Your task to perform on an android device: turn on location history Image 0: 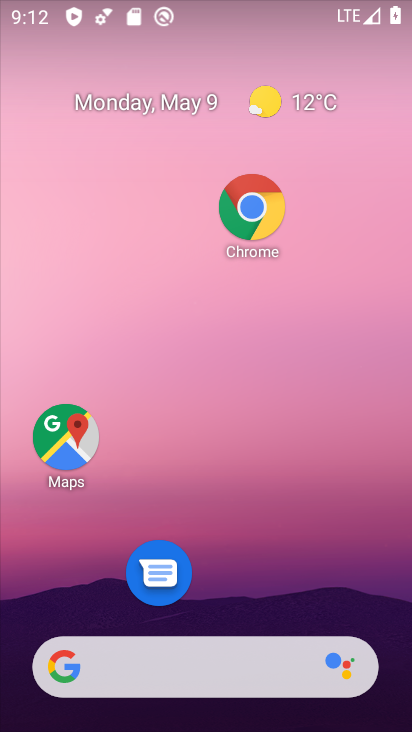
Step 0: drag from (265, 534) to (233, 351)
Your task to perform on an android device: turn on location history Image 1: 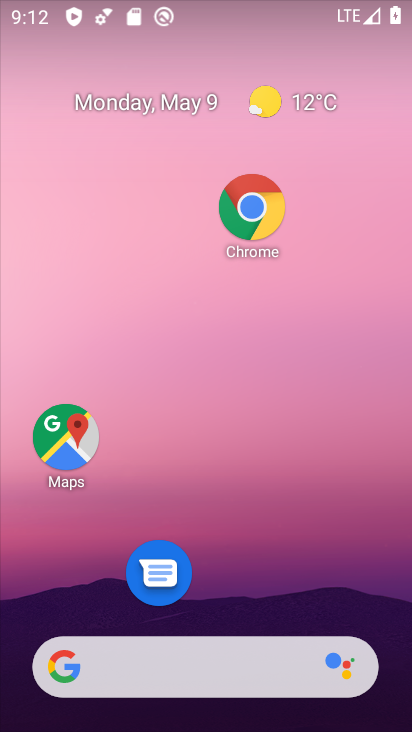
Step 1: drag from (294, 554) to (253, 368)
Your task to perform on an android device: turn on location history Image 2: 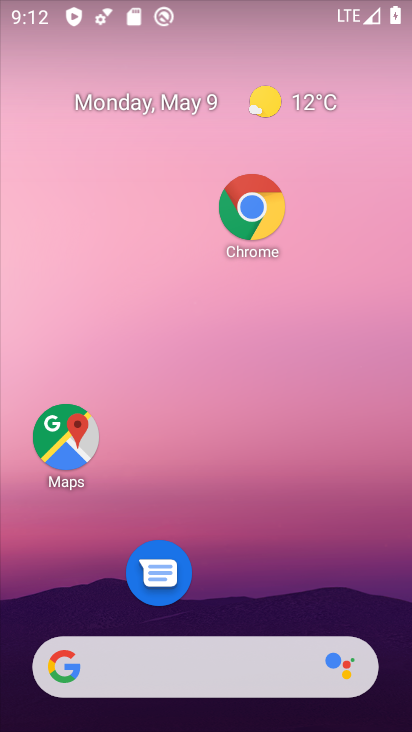
Step 2: drag from (311, 537) to (300, 179)
Your task to perform on an android device: turn on location history Image 3: 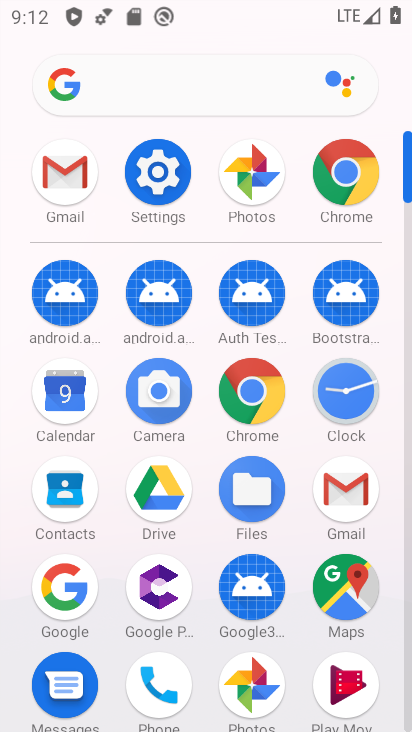
Step 3: click (165, 183)
Your task to perform on an android device: turn on location history Image 4: 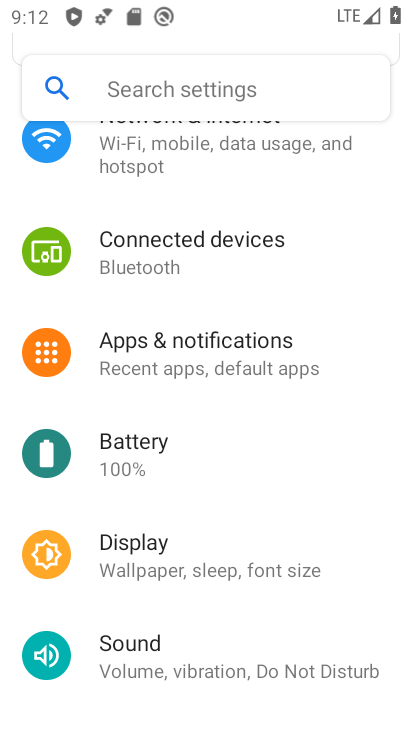
Step 4: drag from (209, 546) to (135, 168)
Your task to perform on an android device: turn on location history Image 5: 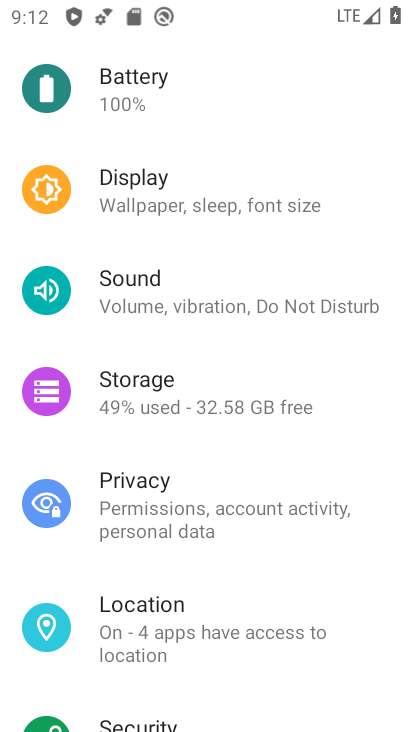
Step 5: click (190, 616)
Your task to perform on an android device: turn on location history Image 6: 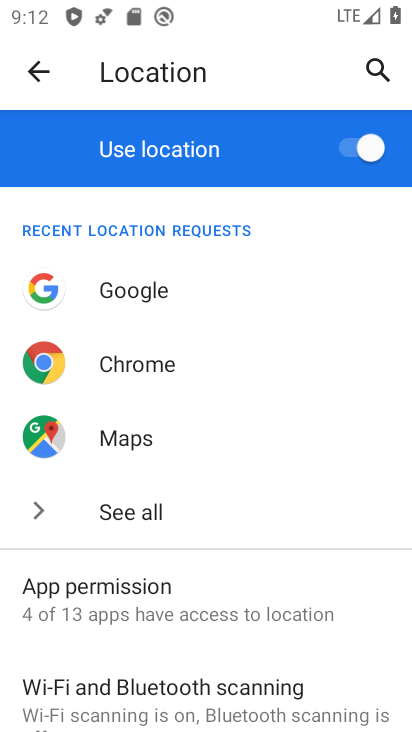
Step 6: drag from (190, 616) to (238, 176)
Your task to perform on an android device: turn on location history Image 7: 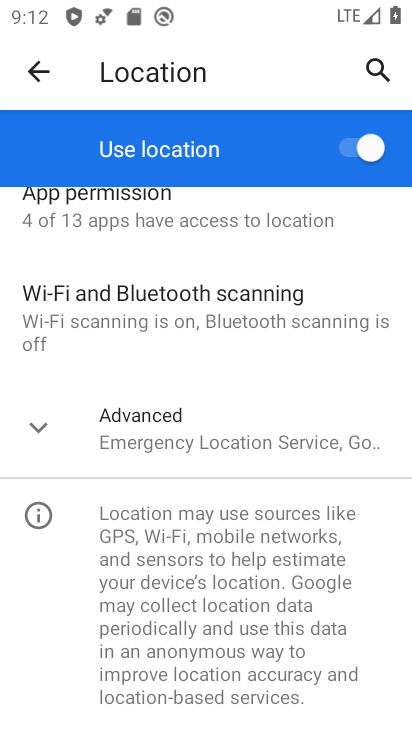
Step 7: click (226, 443)
Your task to perform on an android device: turn on location history Image 8: 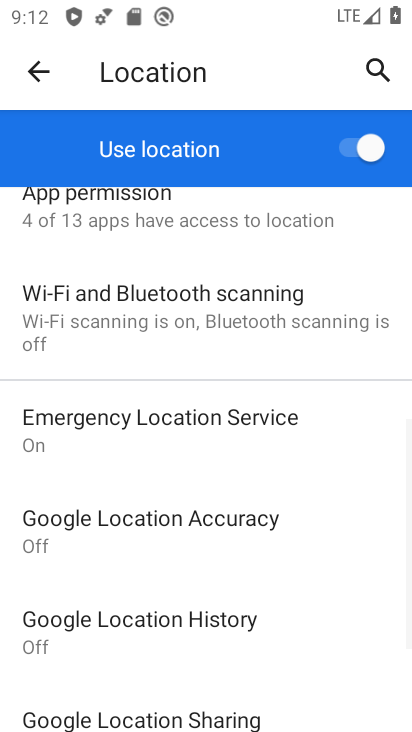
Step 8: drag from (233, 499) to (190, 225)
Your task to perform on an android device: turn on location history Image 9: 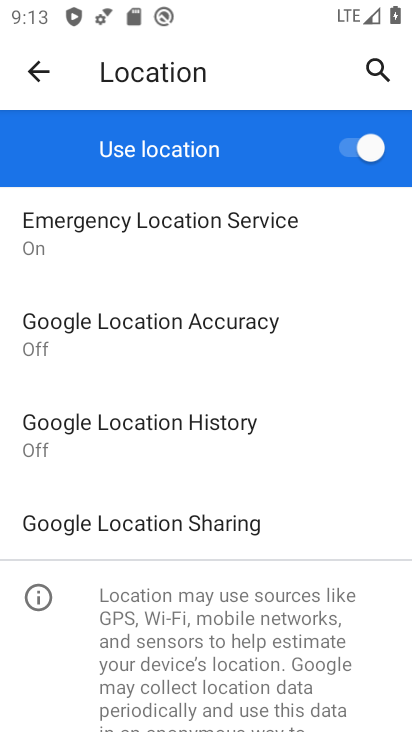
Step 9: click (221, 437)
Your task to perform on an android device: turn on location history Image 10: 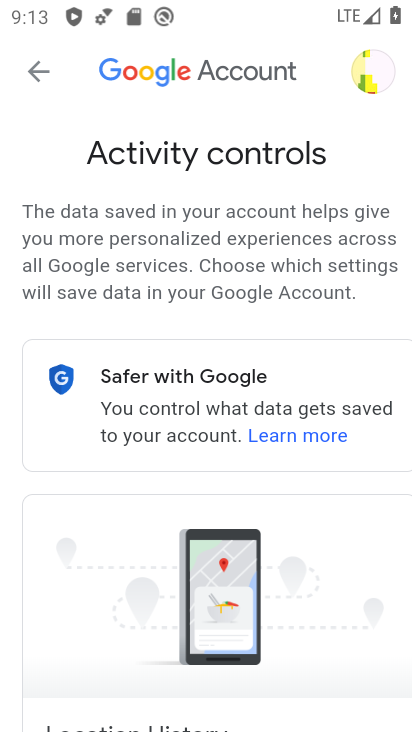
Step 10: task complete